Your task to perform on an android device: Do I have any events today? Image 0: 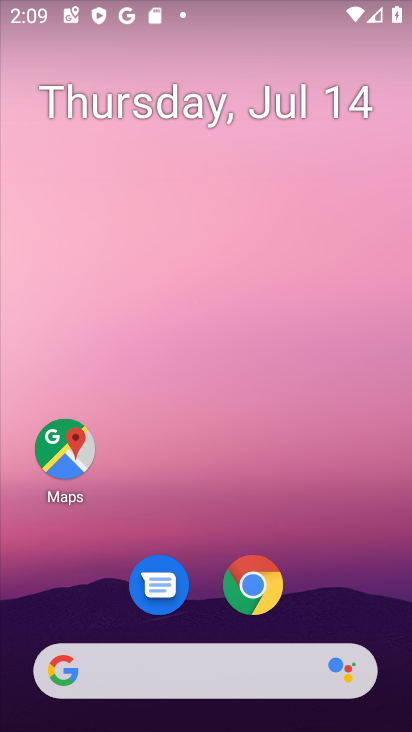
Step 0: drag from (237, 436) to (194, 70)
Your task to perform on an android device: Do I have any events today? Image 1: 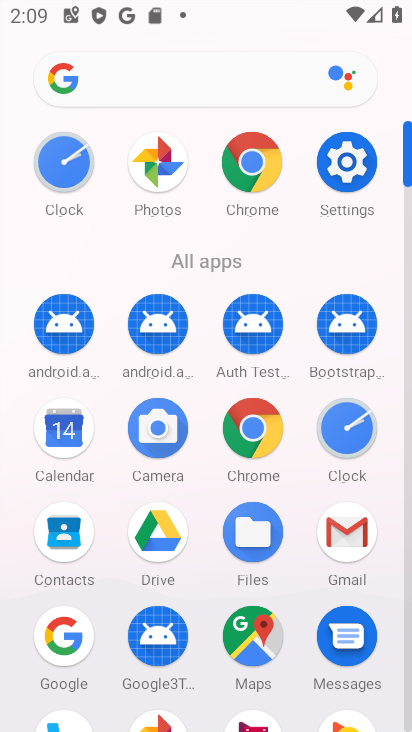
Step 1: click (77, 418)
Your task to perform on an android device: Do I have any events today? Image 2: 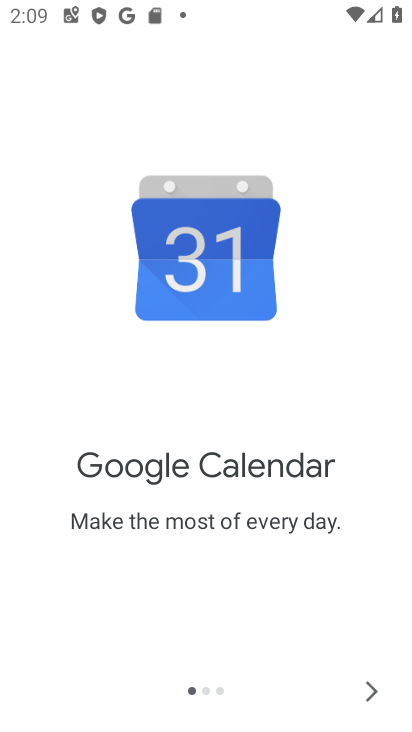
Step 2: click (368, 690)
Your task to perform on an android device: Do I have any events today? Image 3: 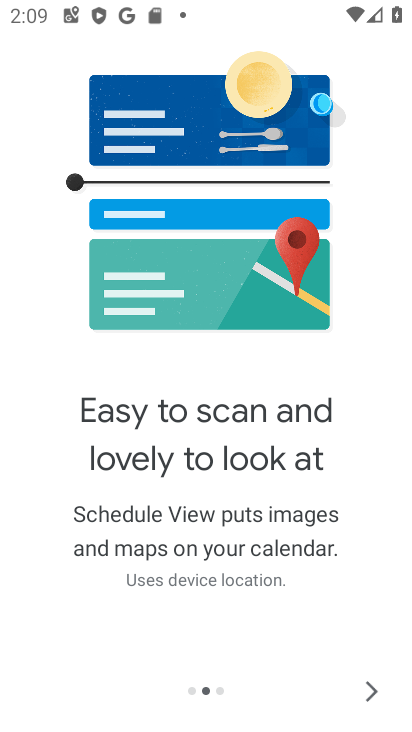
Step 3: click (368, 686)
Your task to perform on an android device: Do I have any events today? Image 4: 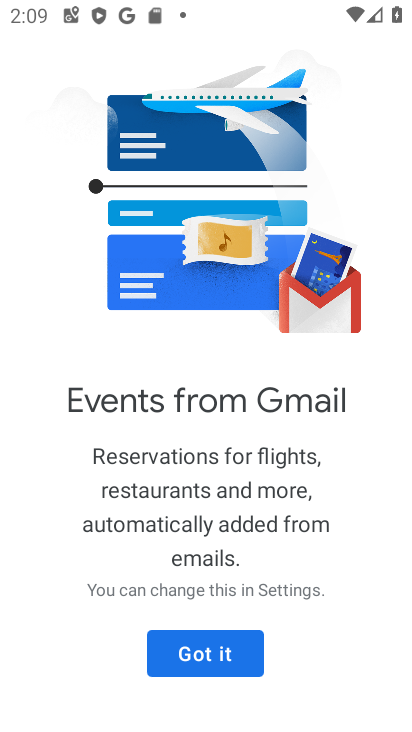
Step 4: click (245, 650)
Your task to perform on an android device: Do I have any events today? Image 5: 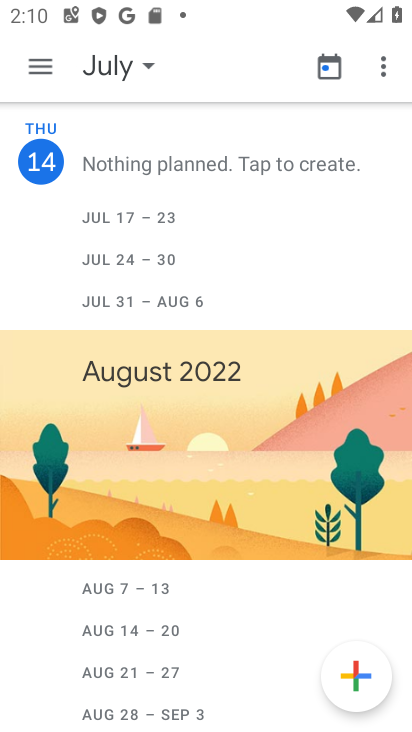
Step 5: click (43, 58)
Your task to perform on an android device: Do I have any events today? Image 6: 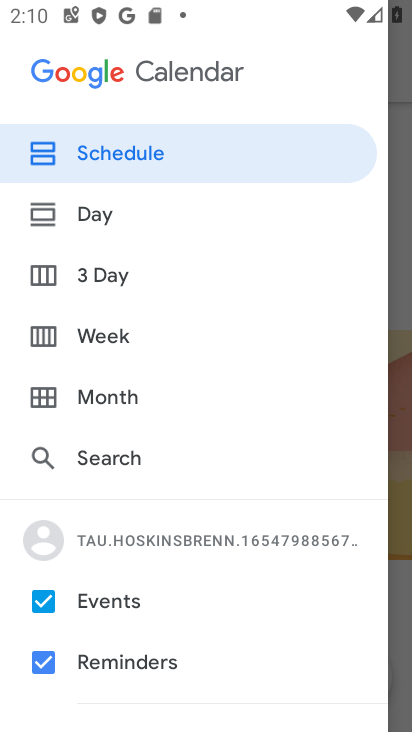
Step 6: click (43, 218)
Your task to perform on an android device: Do I have any events today? Image 7: 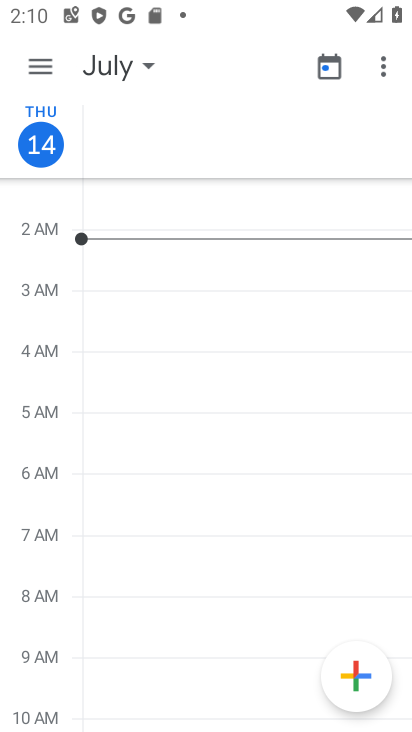
Step 7: task complete